Your task to perform on an android device: Go to Reddit.com Image 0: 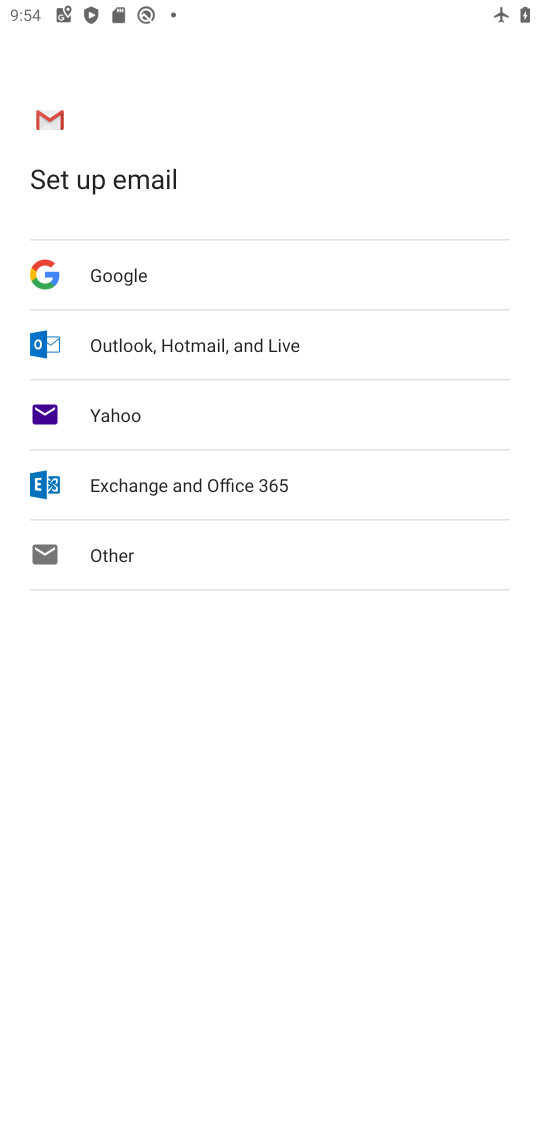
Step 0: press back button
Your task to perform on an android device: Go to Reddit.com Image 1: 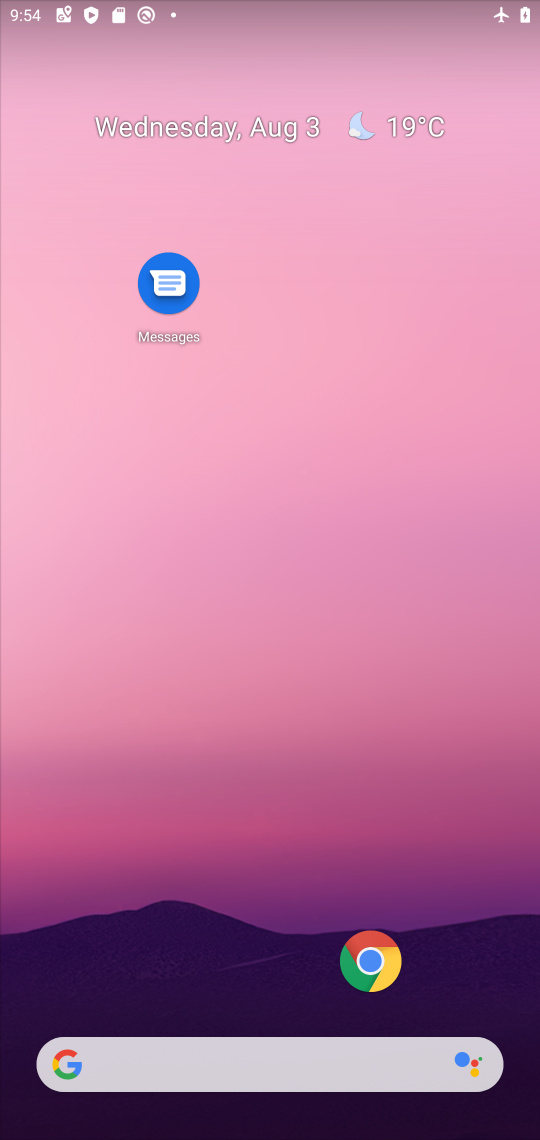
Step 1: click (386, 967)
Your task to perform on an android device: Go to Reddit.com Image 2: 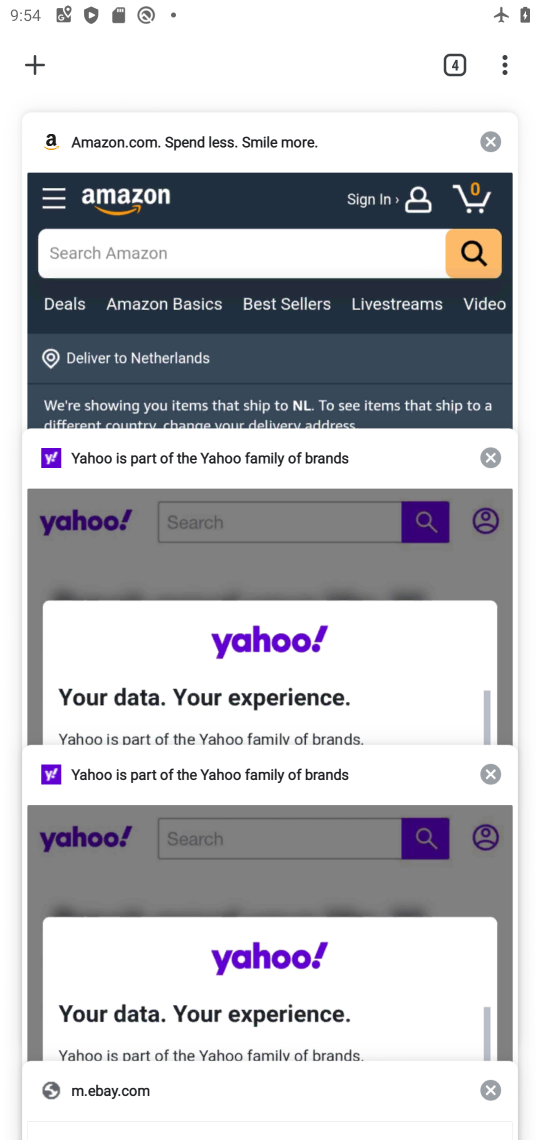
Step 2: click (32, 75)
Your task to perform on an android device: Go to Reddit.com Image 3: 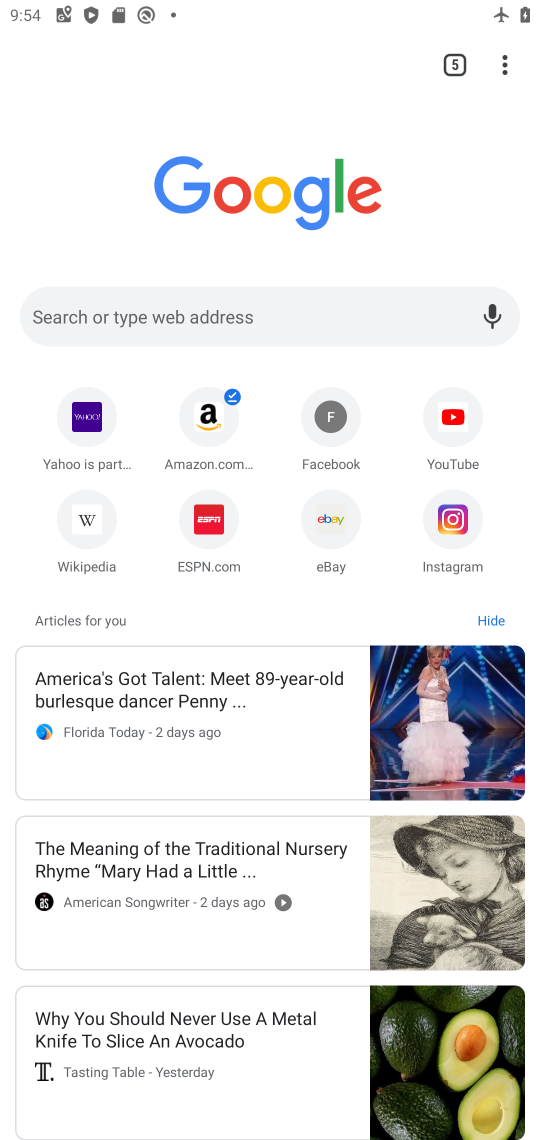
Step 3: click (204, 321)
Your task to perform on an android device: Go to Reddit.com Image 4: 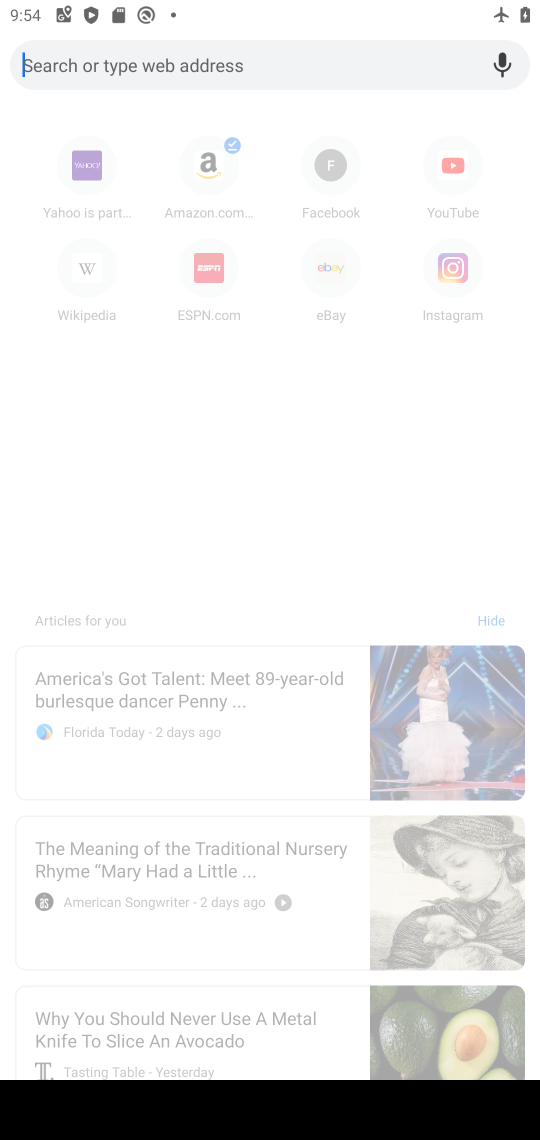
Step 4: type "Reddit.com"
Your task to perform on an android device: Go to Reddit.com Image 5: 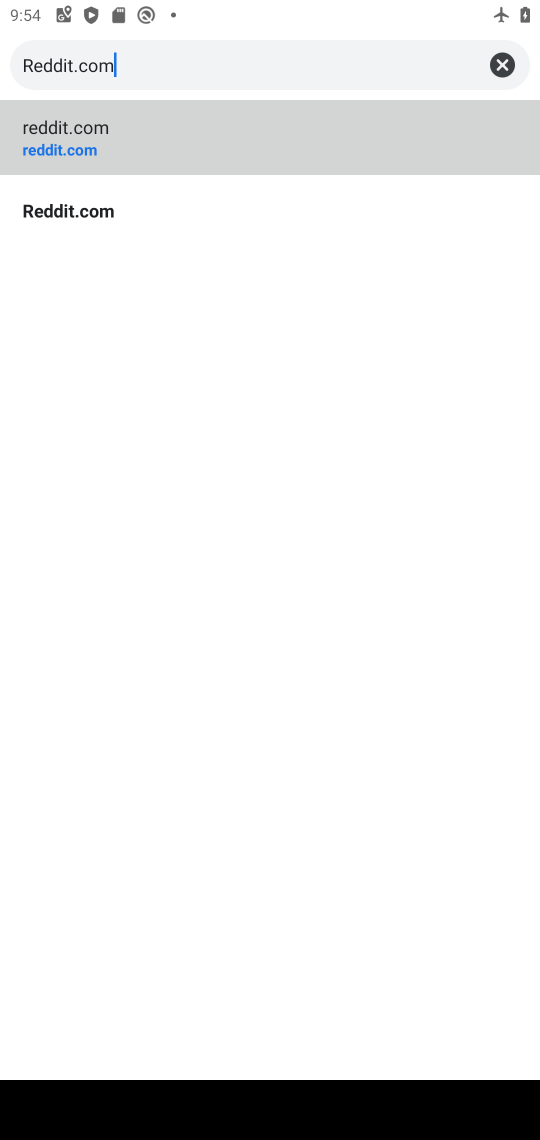
Step 5: type ""
Your task to perform on an android device: Go to Reddit.com Image 6: 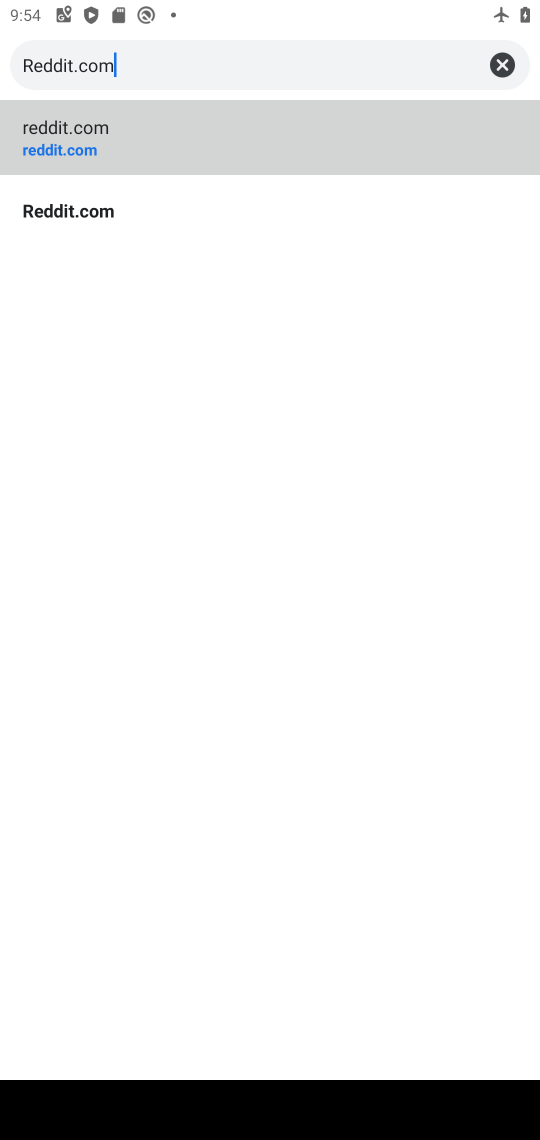
Step 6: click (135, 147)
Your task to perform on an android device: Go to Reddit.com Image 7: 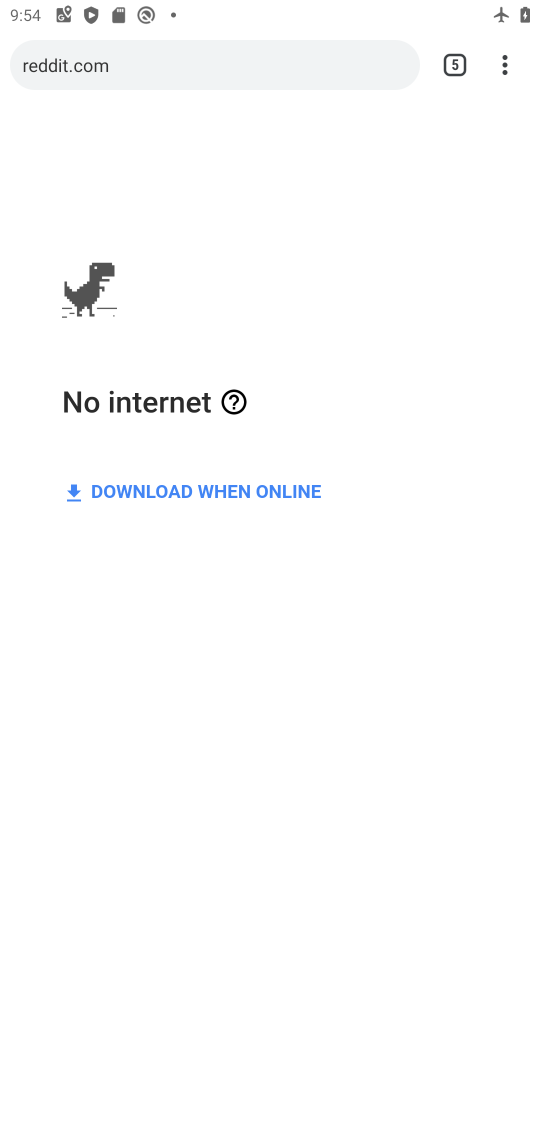
Step 7: task complete